Your task to perform on an android device: Search for a cheap bike on Walmart Image 0: 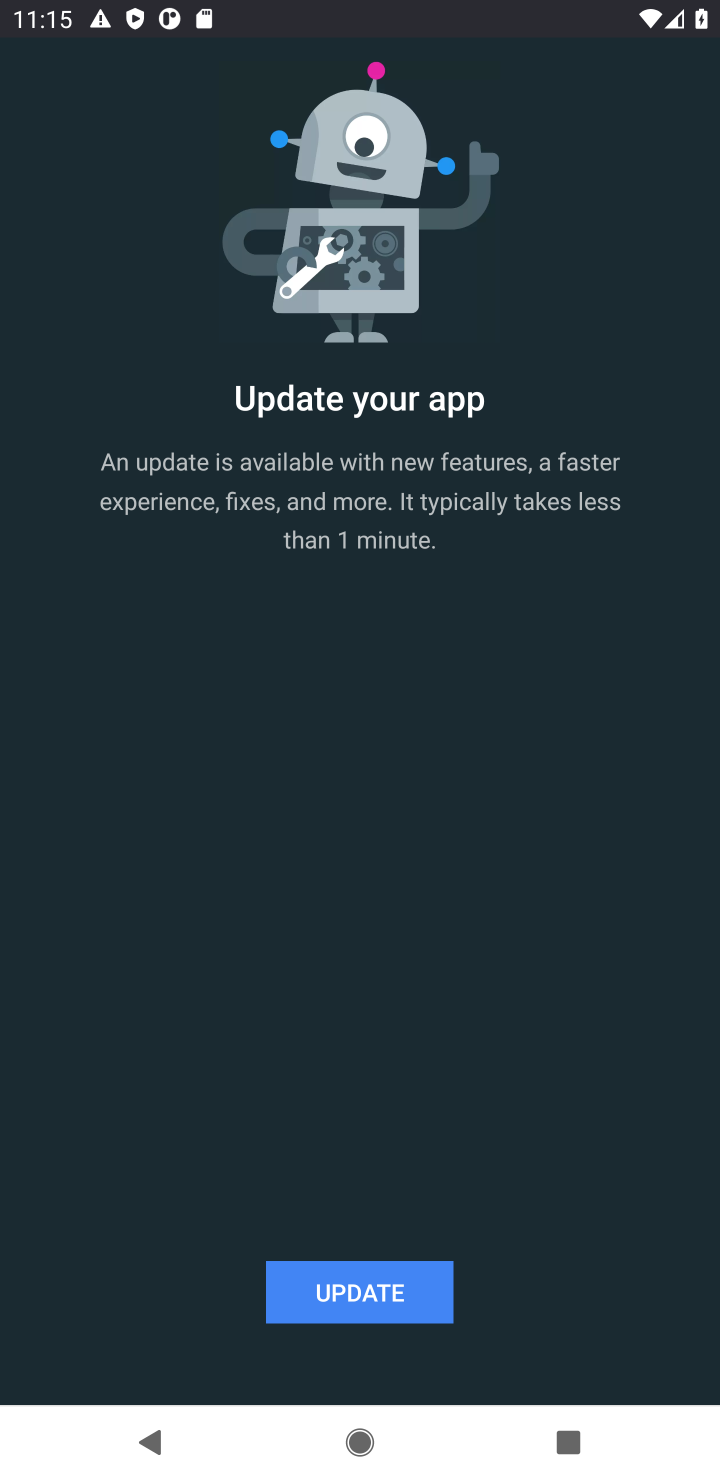
Step 0: press home button
Your task to perform on an android device: Search for a cheap bike on Walmart Image 1: 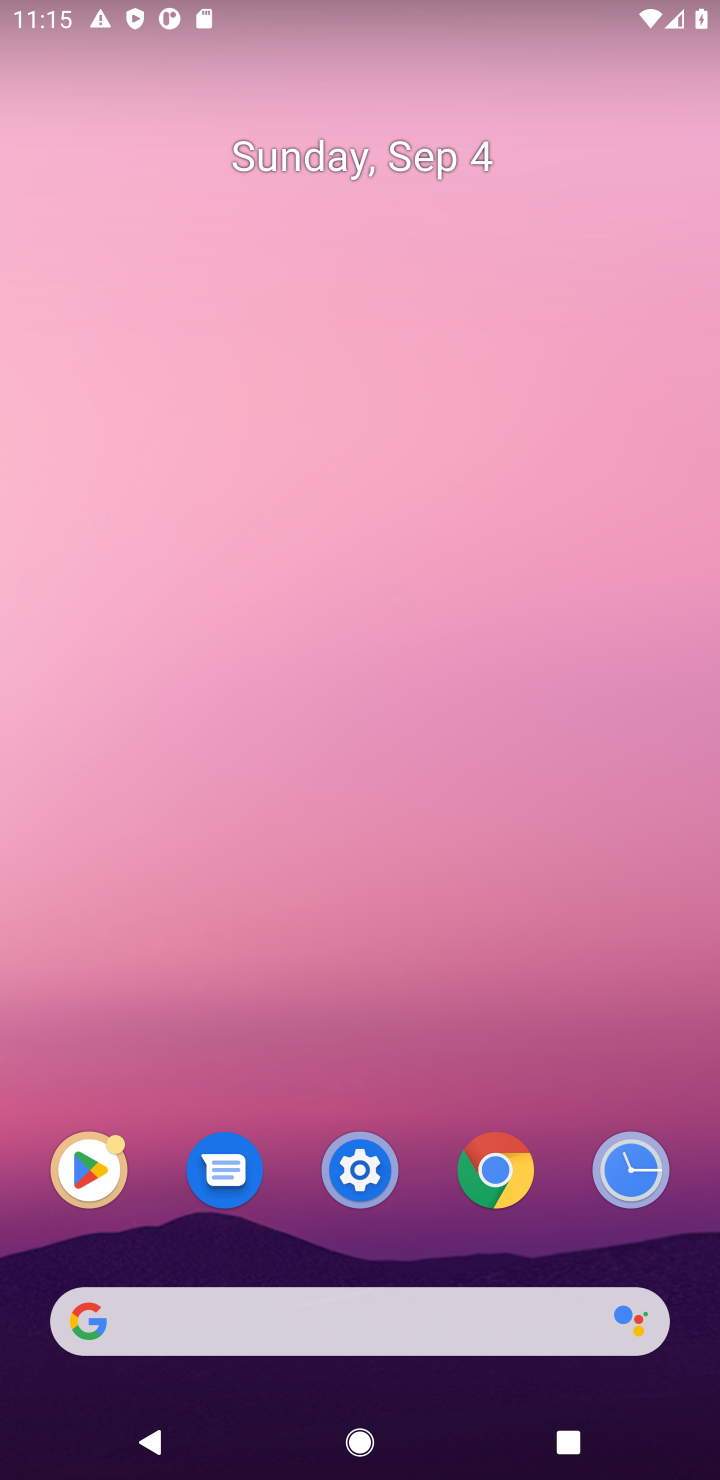
Step 1: click (345, 1288)
Your task to perform on an android device: Search for a cheap bike on Walmart Image 2: 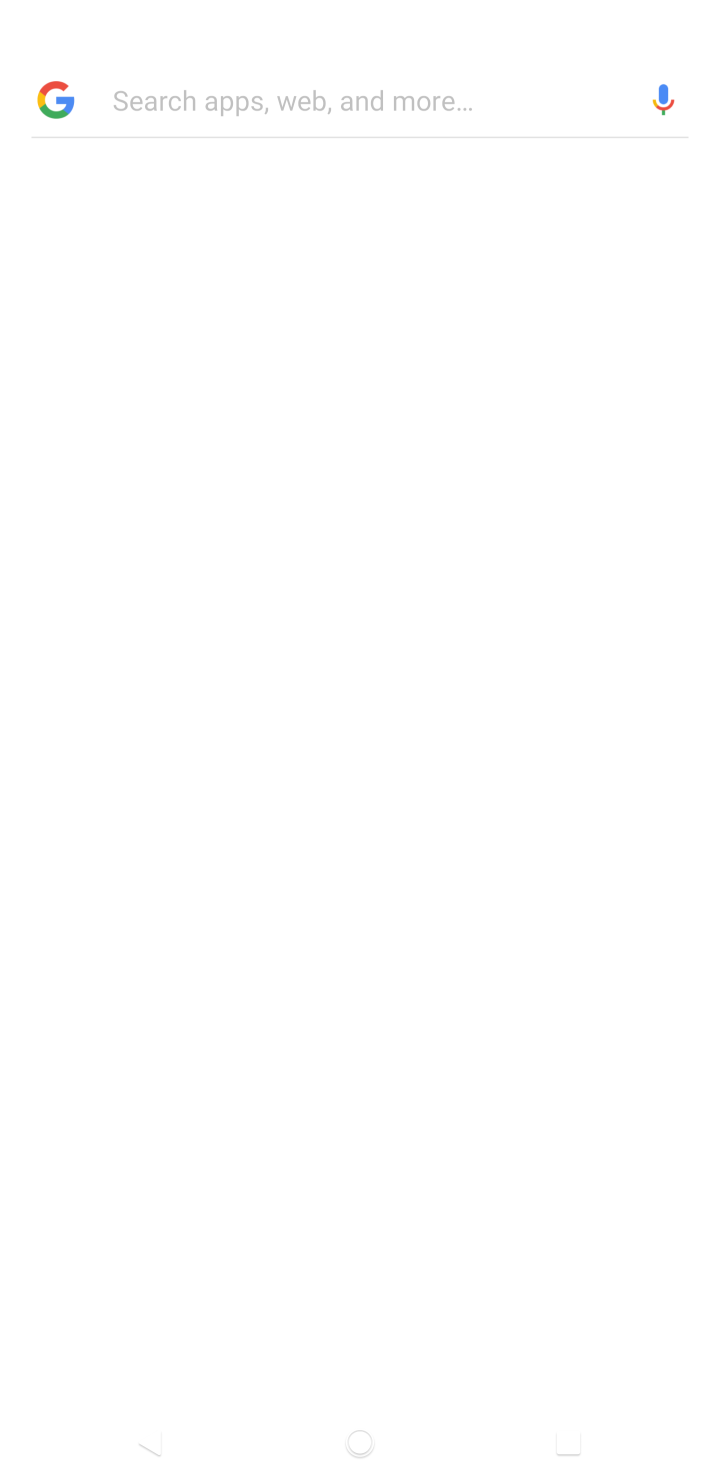
Step 2: click (333, 1310)
Your task to perform on an android device: Search for a cheap bike on Walmart Image 3: 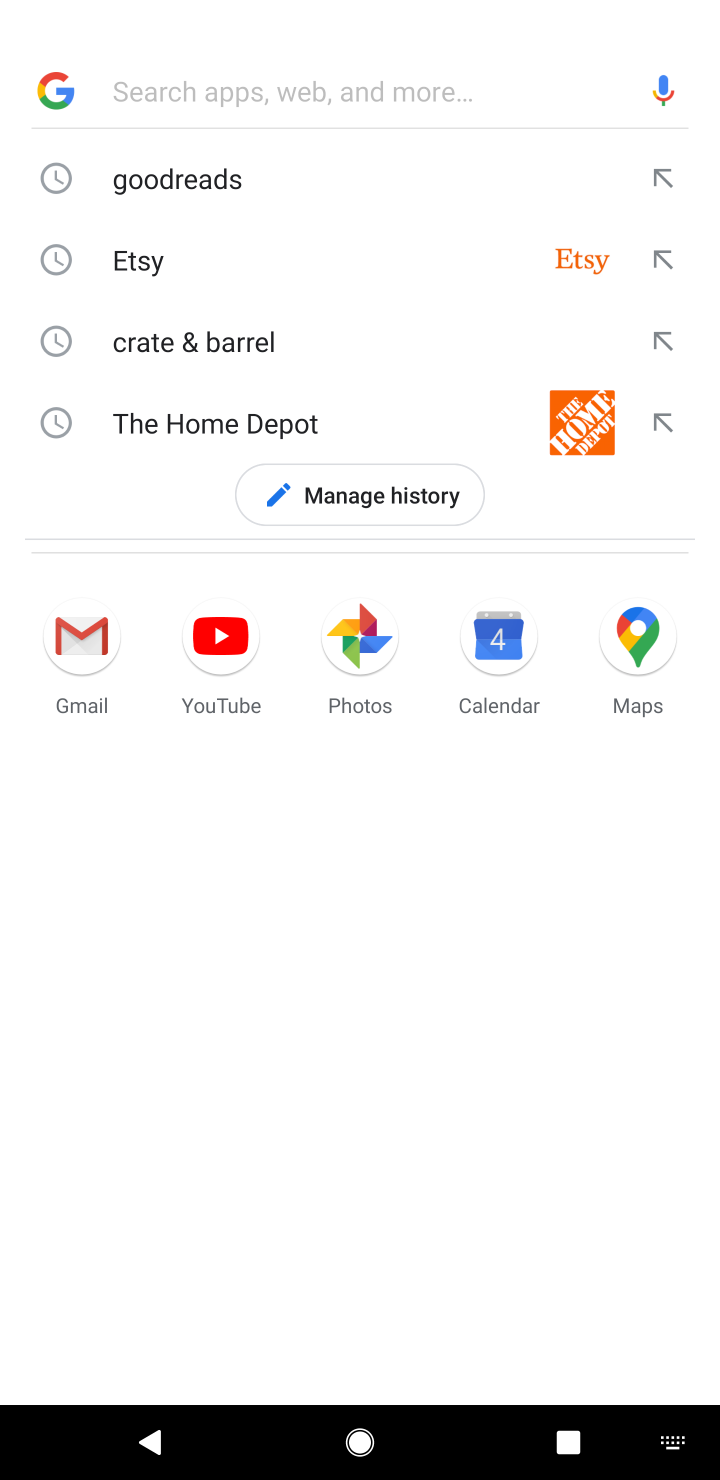
Step 3: type "Walmart"
Your task to perform on an android device: Search for a cheap bike on Walmart Image 4: 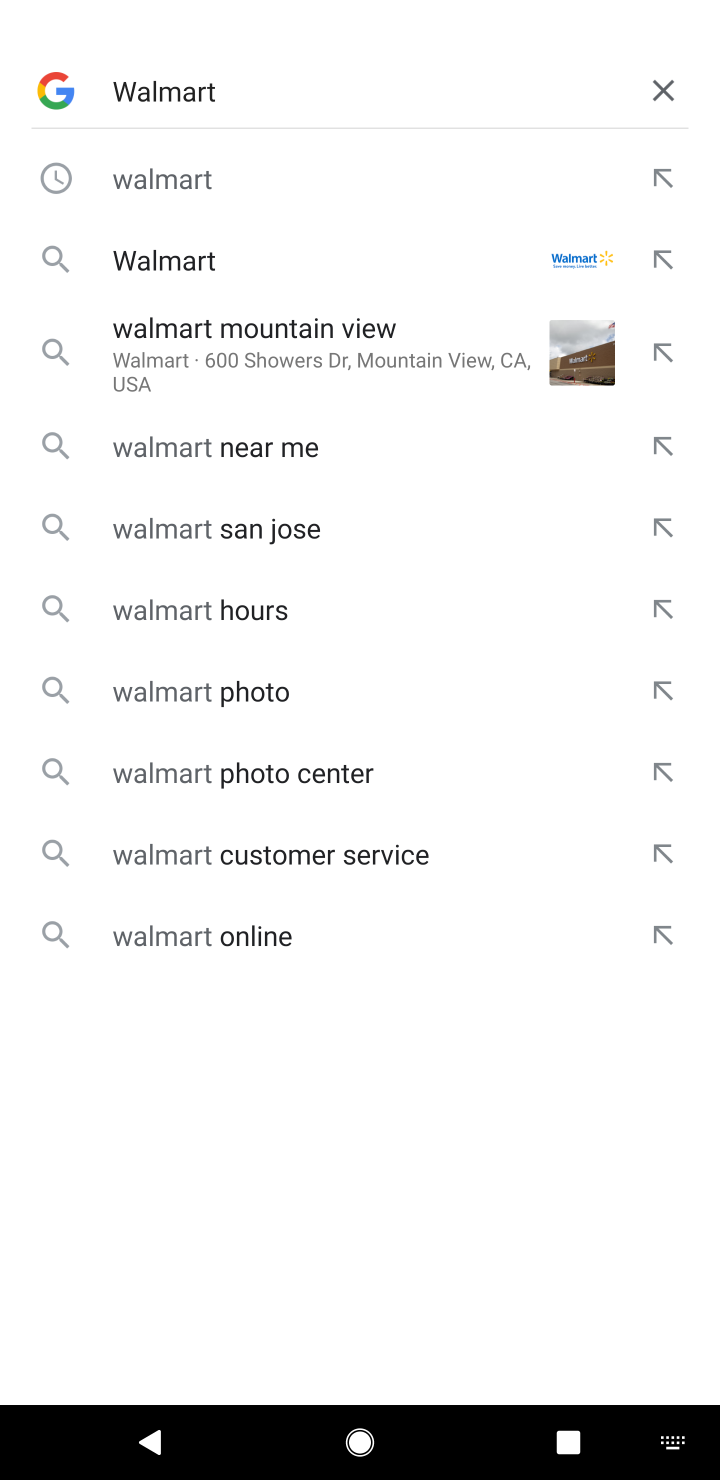
Step 4: type ""
Your task to perform on an android device: Search for a cheap bike on Walmart Image 5: 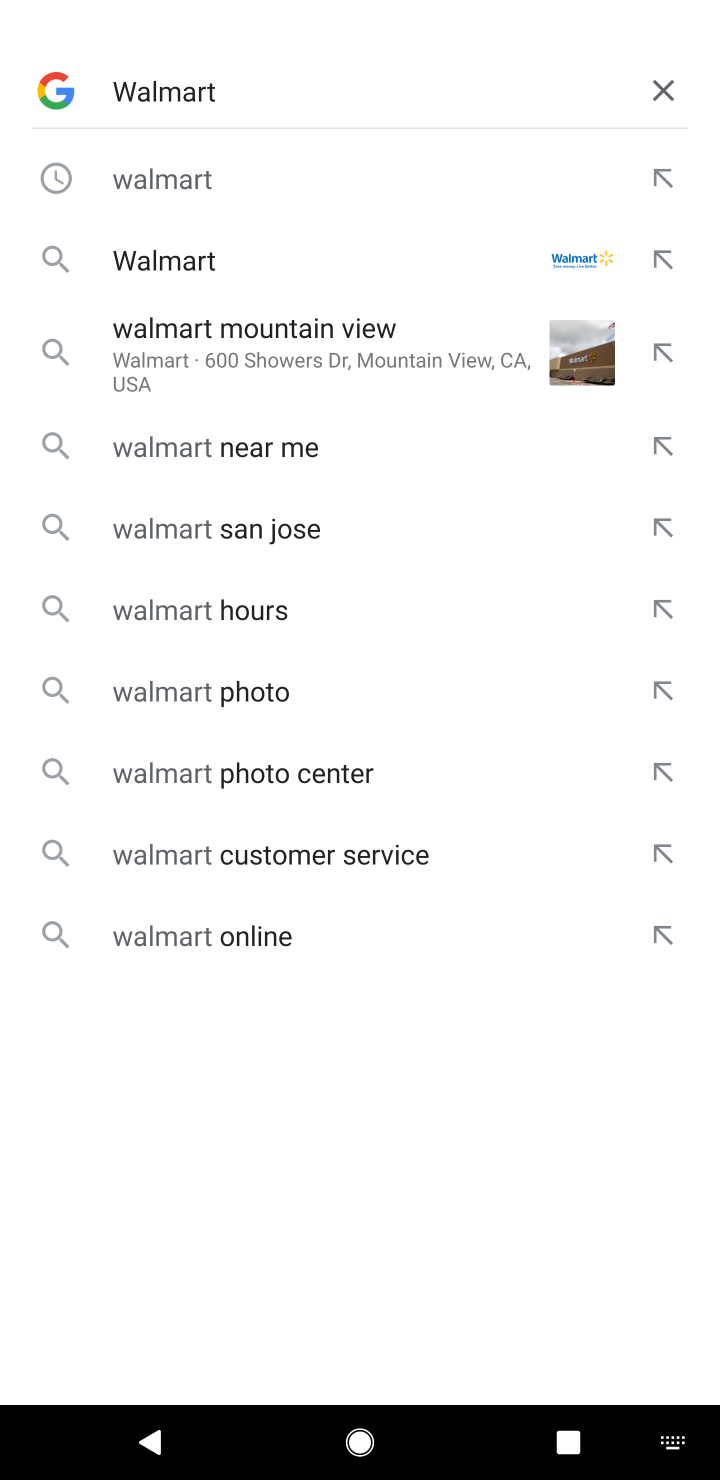
Step 5: click (205, 205)
Your task to perform on an android device: Search for a cheap bike on Walmart Image 6: 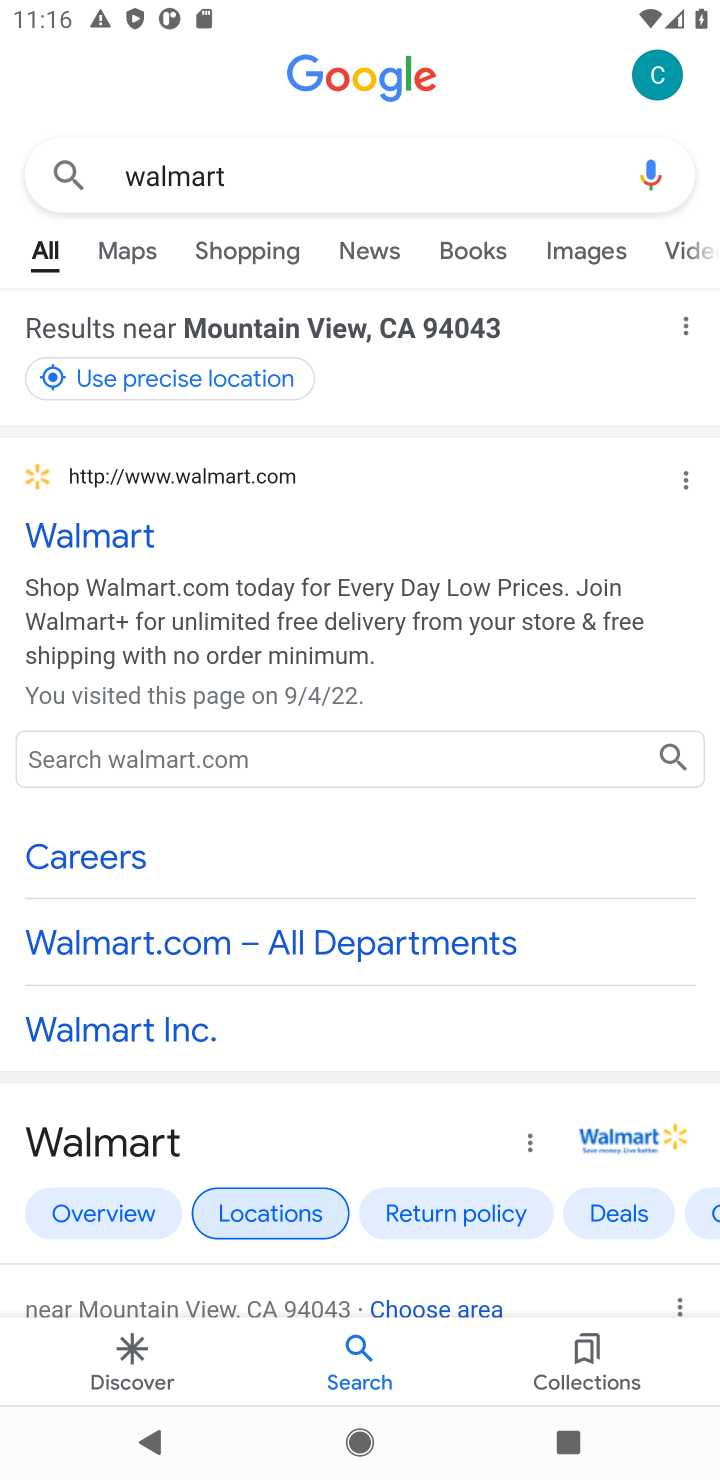
Step 6: click (97, 533)
Your task to perform on an android device: Search for a cheap bike on Walmart Image 7: 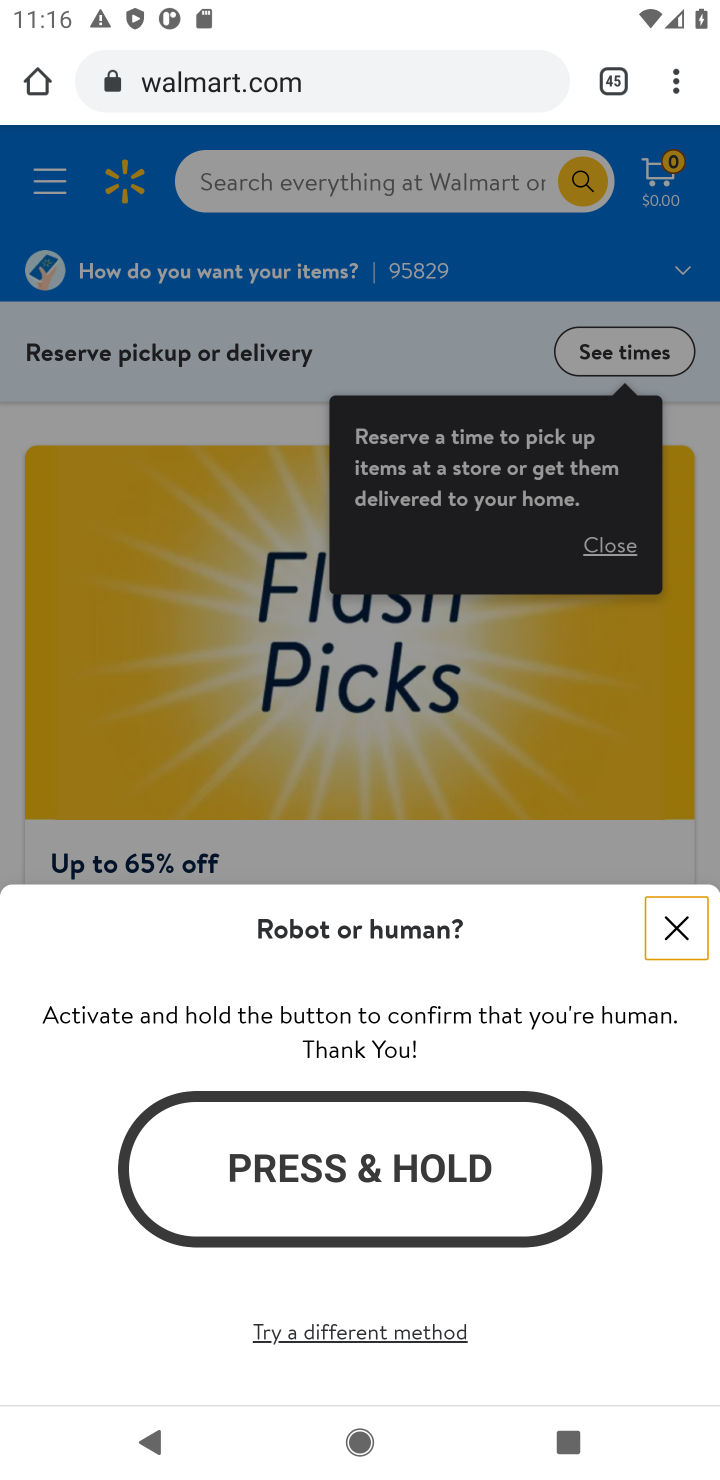
Step 7: click (688, 935)
Your task to perform on an android device: Search for a cheap bike on Walmart Image 8: 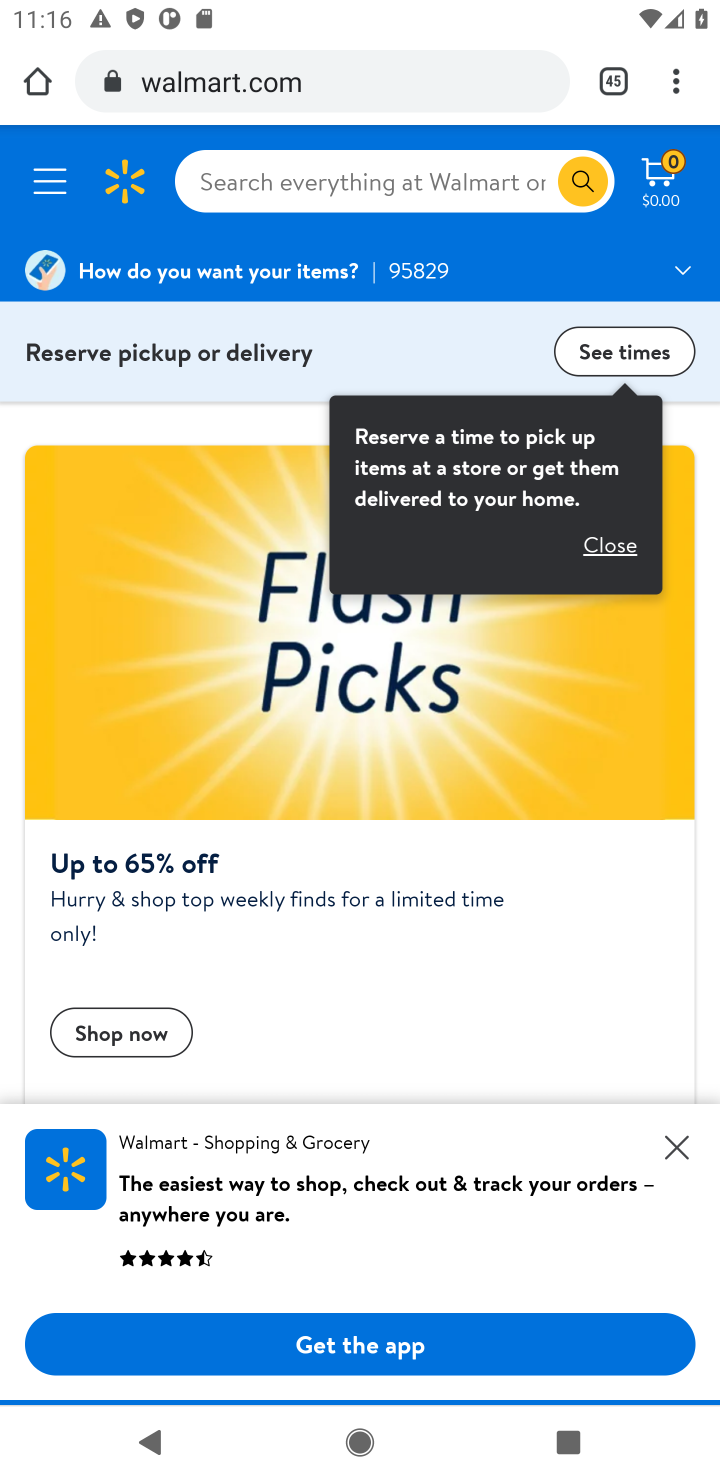
Step 8: click (273, 195)
Your task to perform on an android device: Search for a cheap bike on Walmart Image 9: 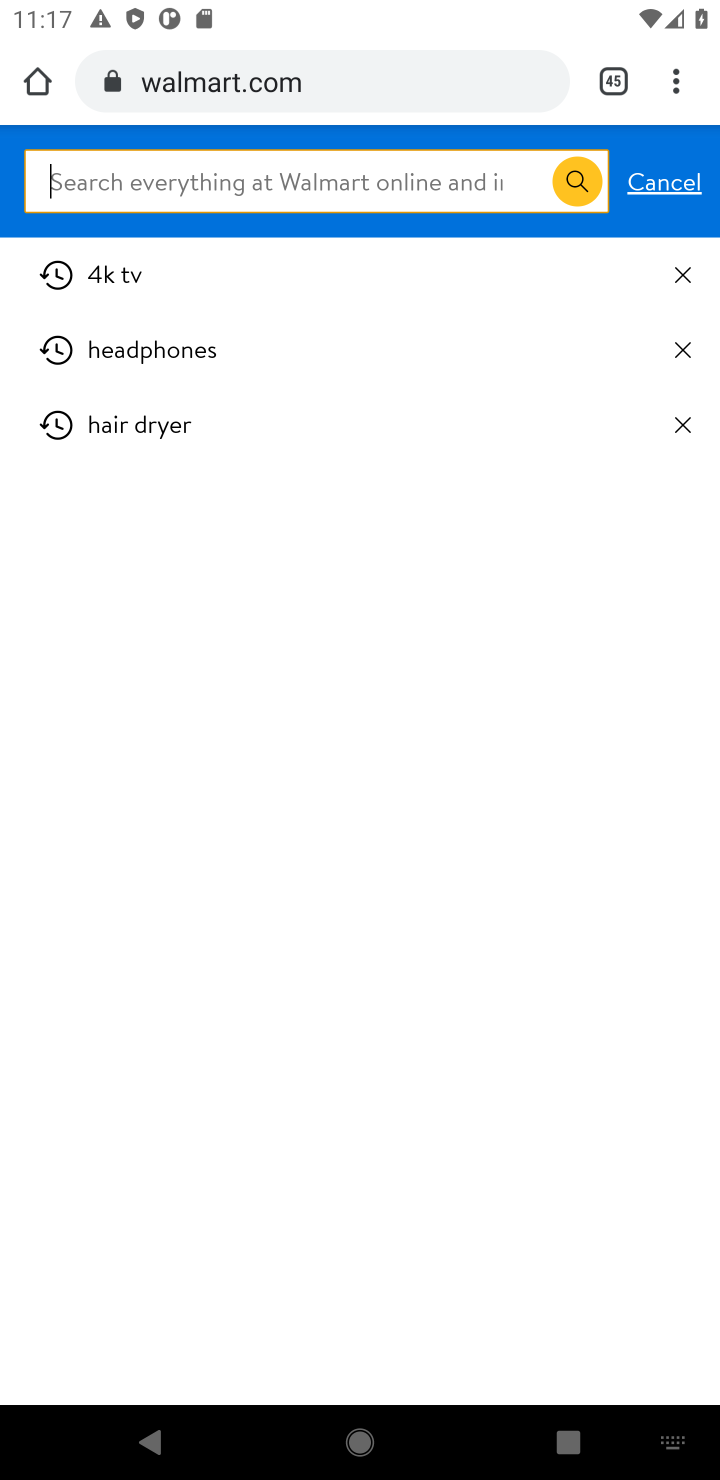
Step 9: type "cheap bike"
Your task to perform on an android device: Search for a cheap bike on Walmart Image 10: 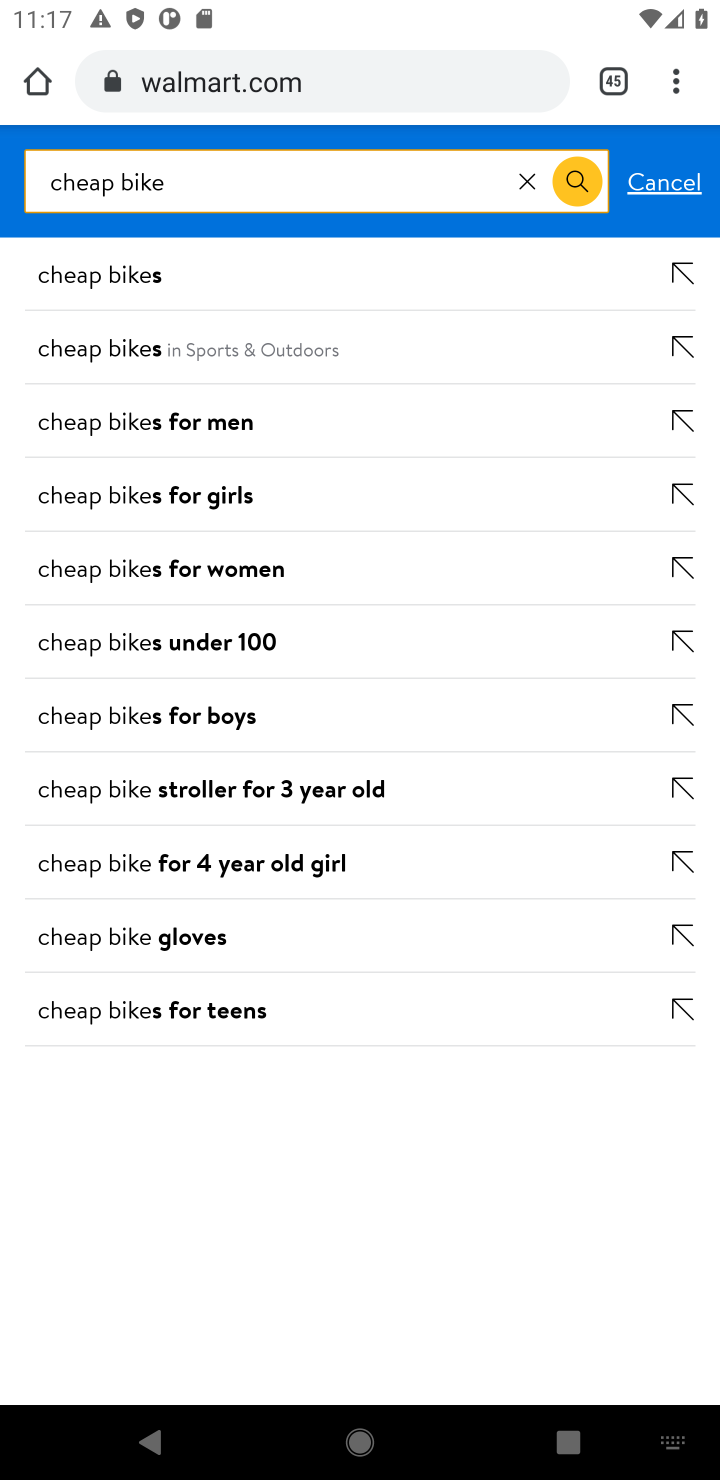
Step 10: click (168, 281)
Your task to perform on an android device: Search for a cheap bike on Walmart Image 11: 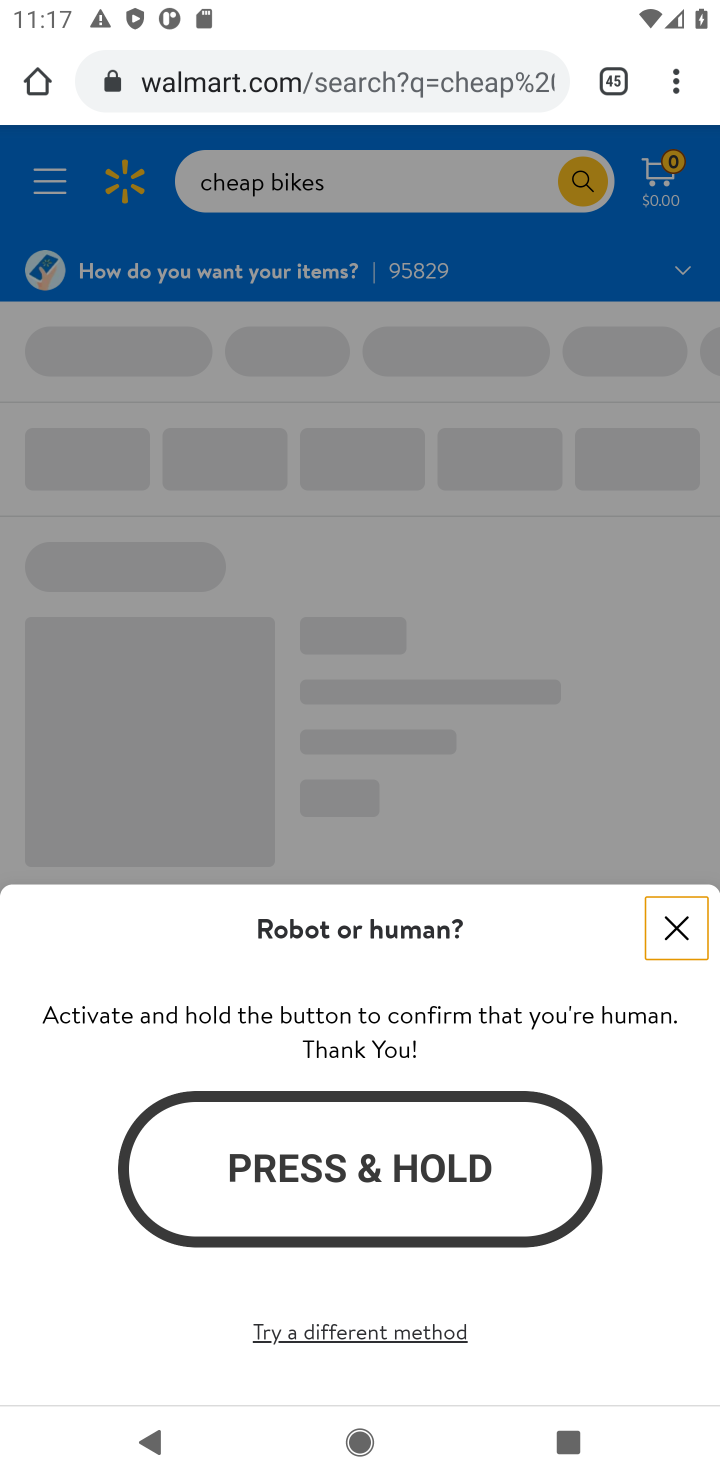
Step 11: click (669, 923)
Your task to perform on an android device: Search for a cheap bike on Walmart Image 12: 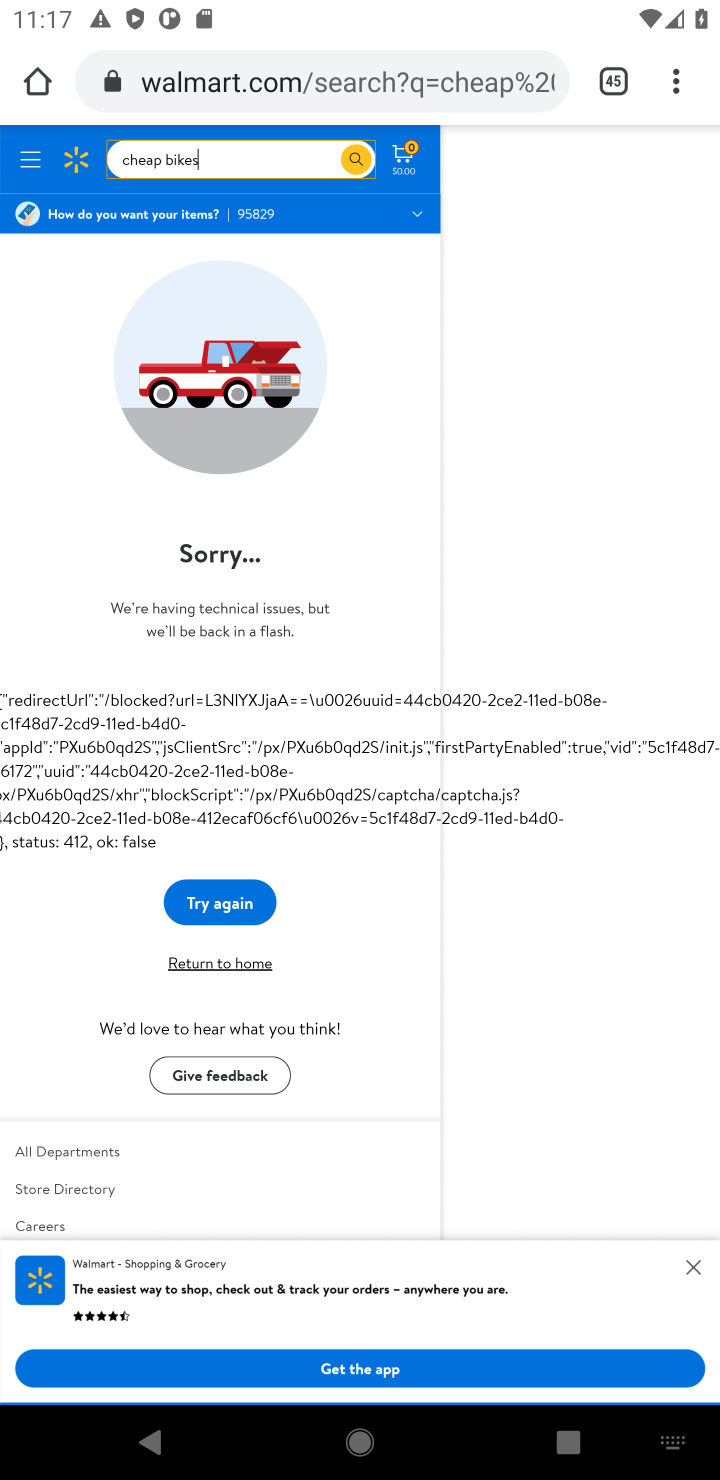
Step 12: task complete